Your task to perform on an android device: open app "Google Photos" Image 0: 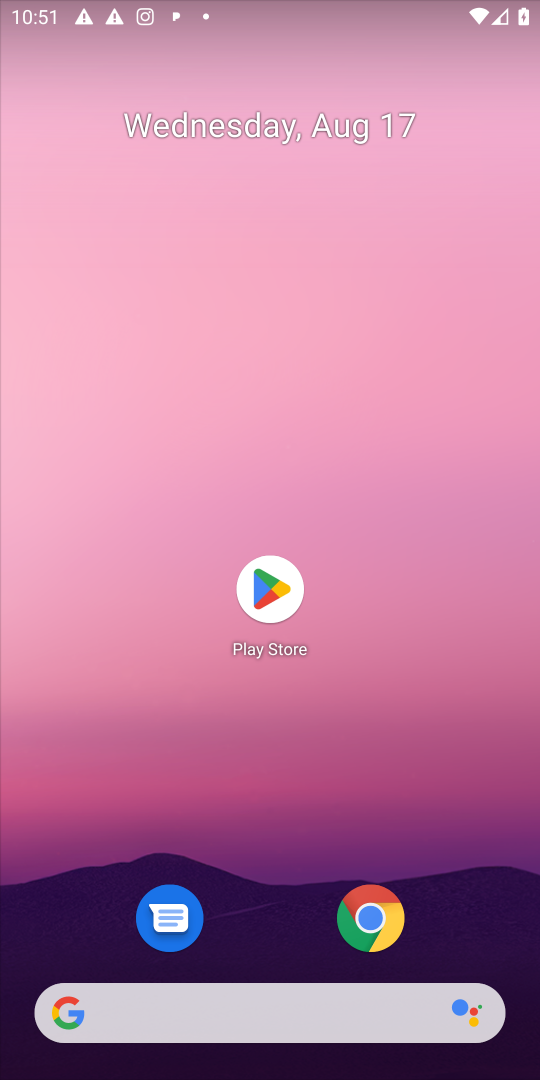
Step 0: click (264, 584)
Your task to perform on an android device: open app "Google Photos" Image 1: 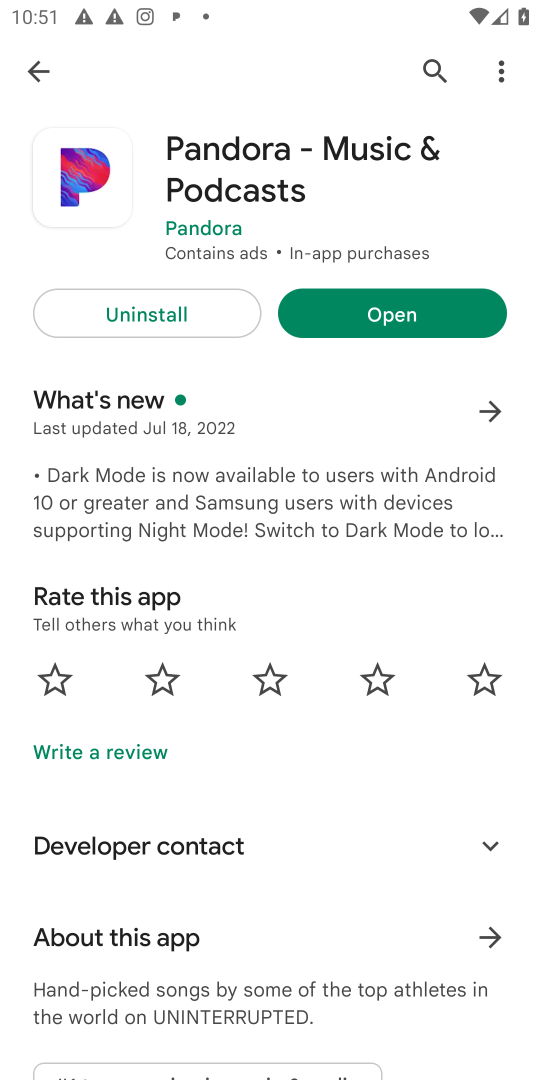
Step 1: click (433, 62)
Your task to perform on an android device: open app "Google Photos" Image 2: 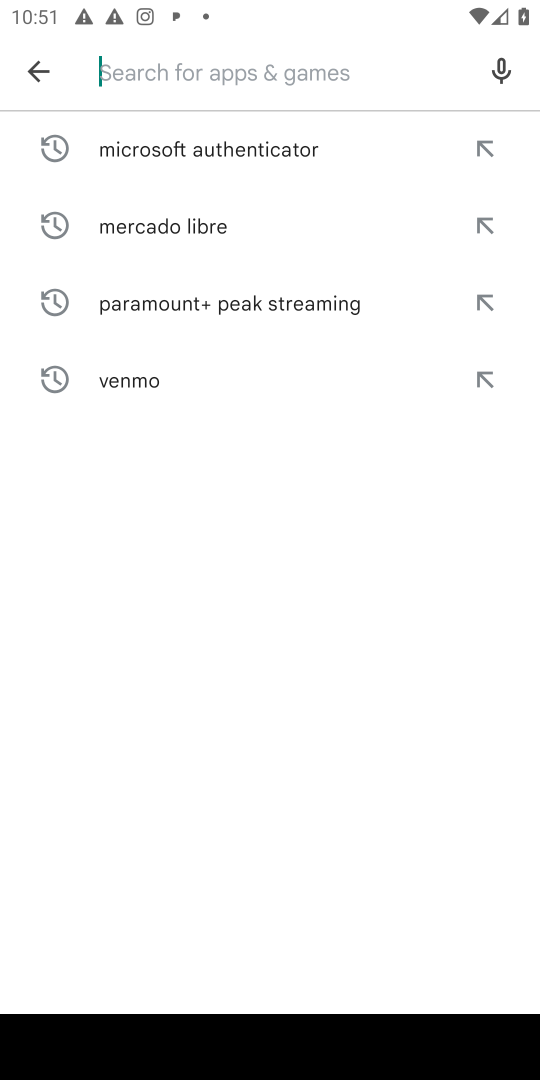
Step 2: type "Google Photos"
Your task to perform on an android device: open app "Google Photos" Image 3: 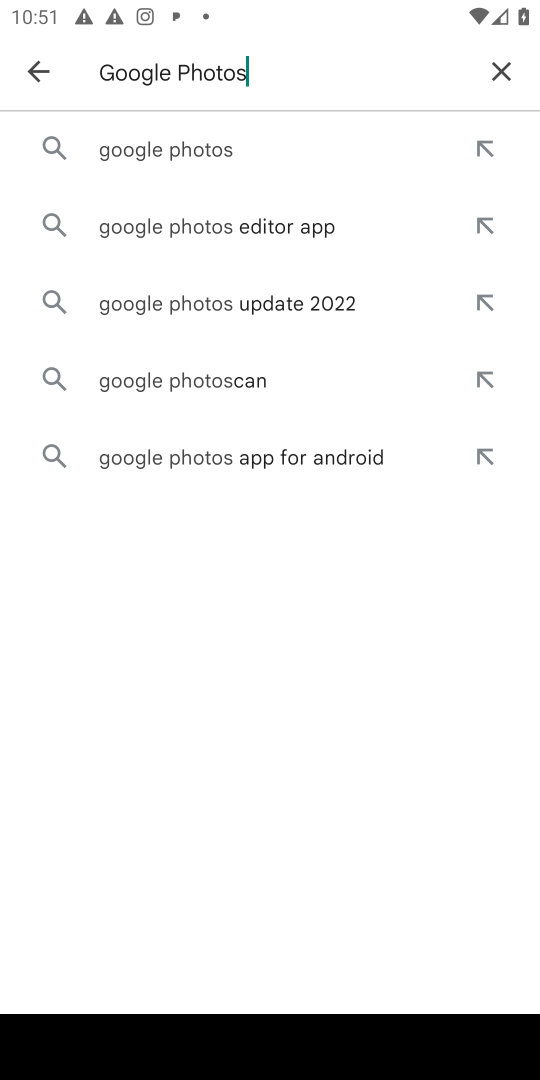
Step 3: click (188, 148)
Your task to perform on an android device: open app "Google Photos" Image 4: 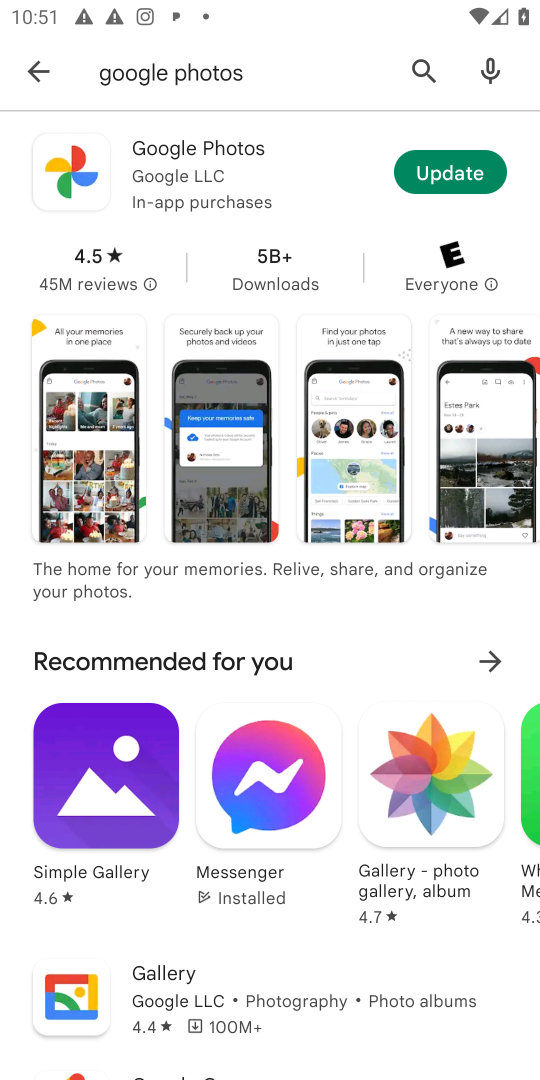
Step 4: click (148, 160)
Your task to perform on an android device: open app "Google Photos" Image 5: 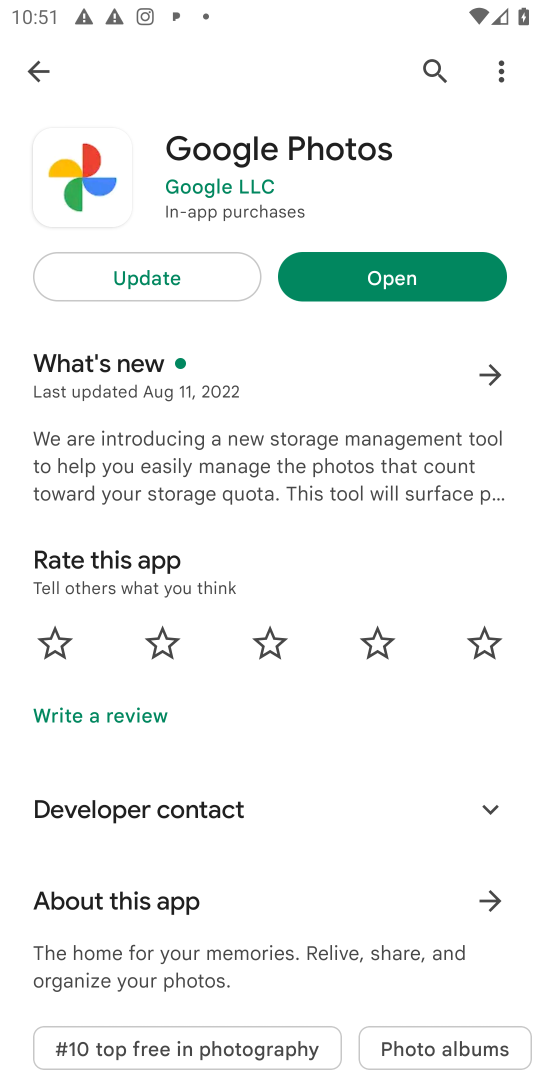
Step 5: click (385, 283)
Your task to perform on an android device: open app "Google Photos" Image 6: 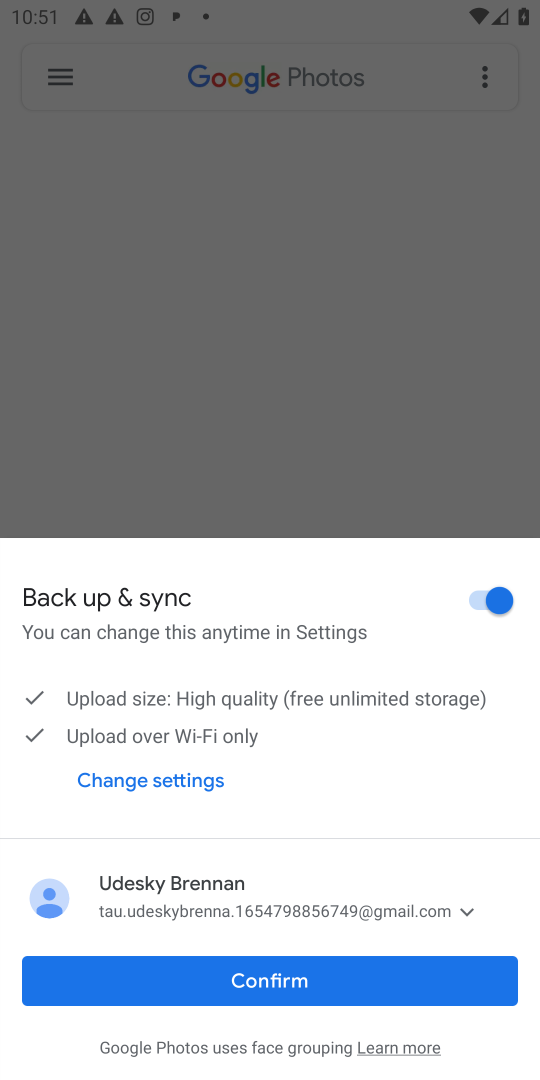
Step 6: click (280, 980)
Your task to perform on an android device: open app "Google Photos" Image 7: 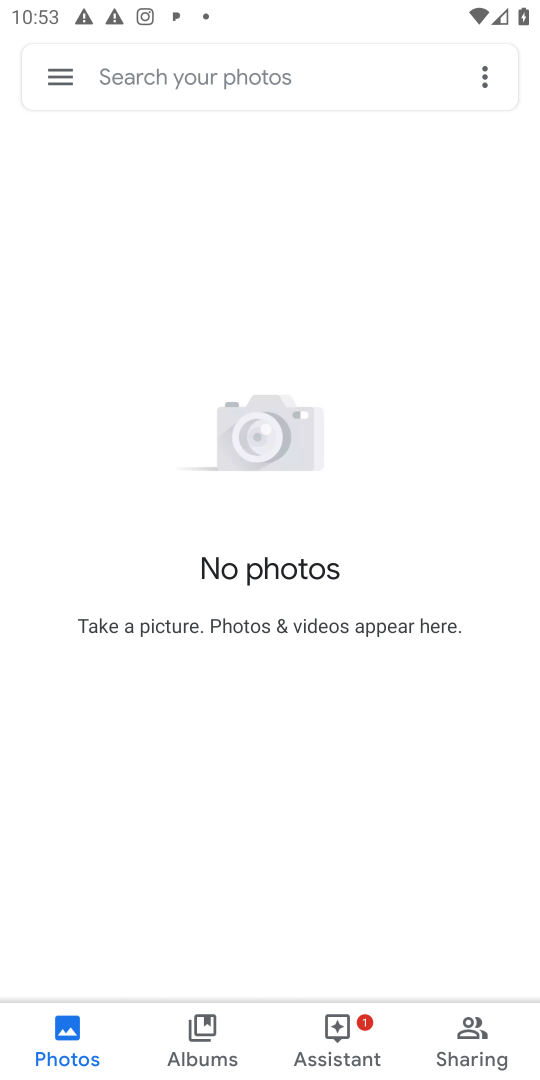
Step 7: task complete